Your task to perform on an android device: toggle wifi Image 0: 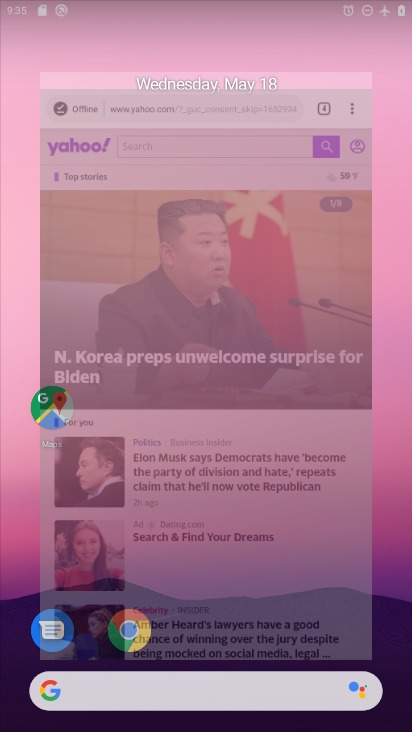
Step 0: drag from (209, 658) to (221, 242)
Your task to perform on an android device: toggle wifi Image 1: 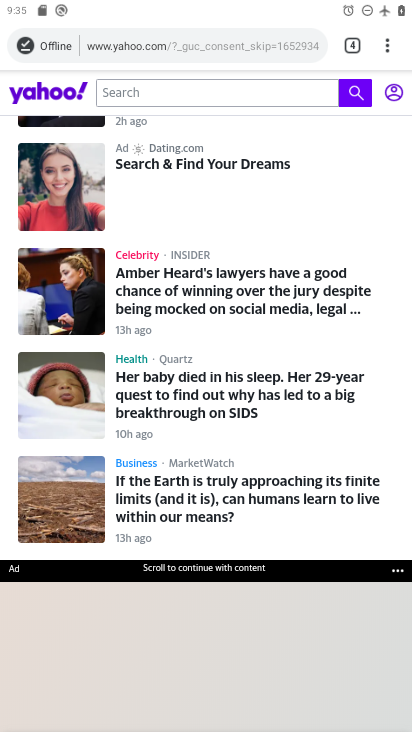
Step 1: press back button
Your task to perform on an android device: toggle wifi Image 2: 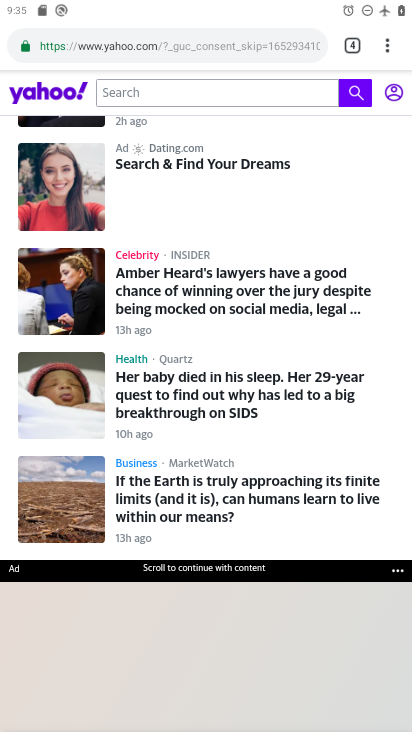
Step 2: press back button
Your task to perform on an android device: toggle wifi Image 3: 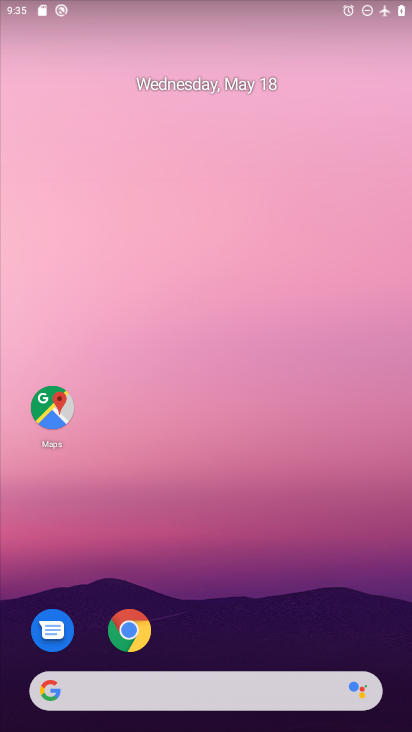
Step 3: drag from (209, 670) to (174, 46)
Your task to perform on an android device: toggle wifi Image 4: 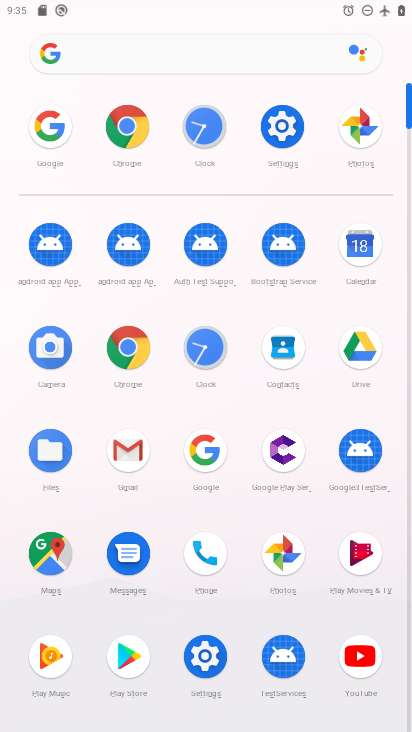
Step 4: click (295, 151)
Your task to perform on an android device: toggle wifi Image 5: 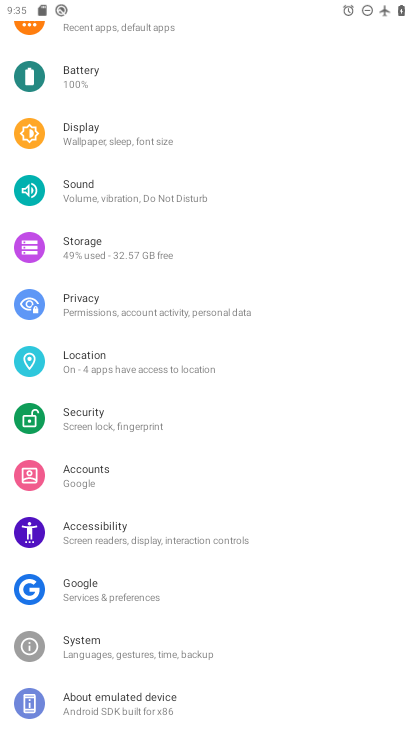
Step 5: drag from (180, 134) to (140, 604)
Your task to perform on an android device: toggle wifi Image 6: 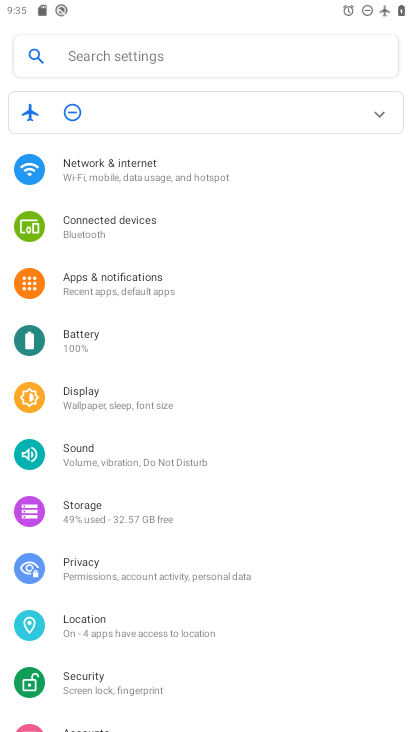
Step 6: click (128, 166)
Your task to perform on an android device: toggle wifi Image 7: 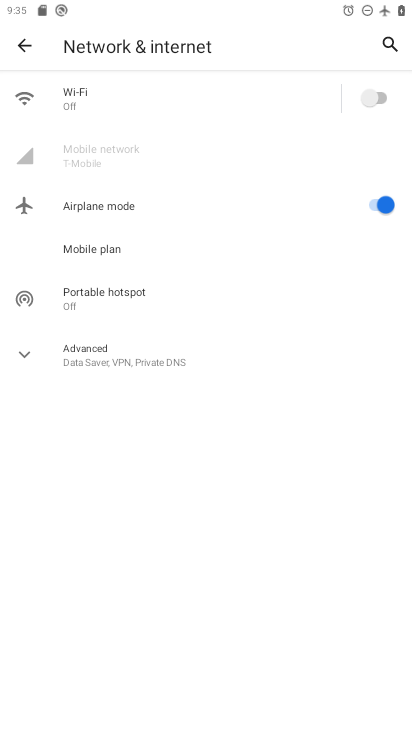
Step 7: click (188, 99)
Your task to perform on an android device: toggle wifi Image 8: 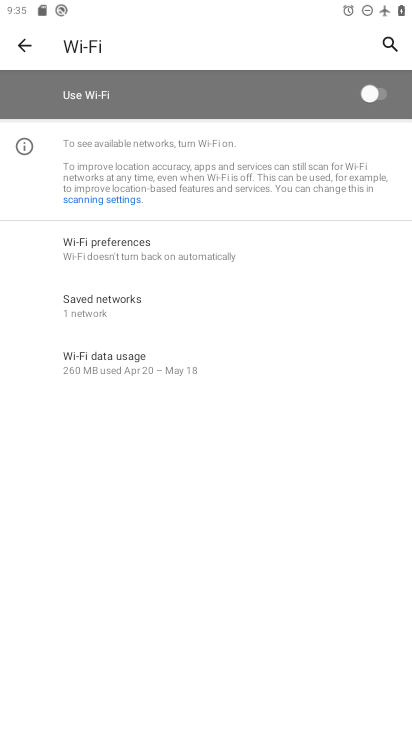
Step 8: task complete